Your task to perform on an android device: empty trash in the gmail app Image 0: 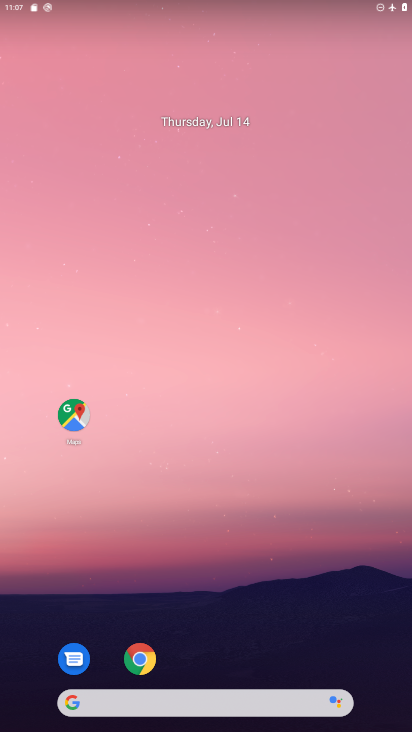
Step 0: drag from (316, 618) to (333, 193)
Your task to perform on an android device: empty trash in the gmail app Image 1: 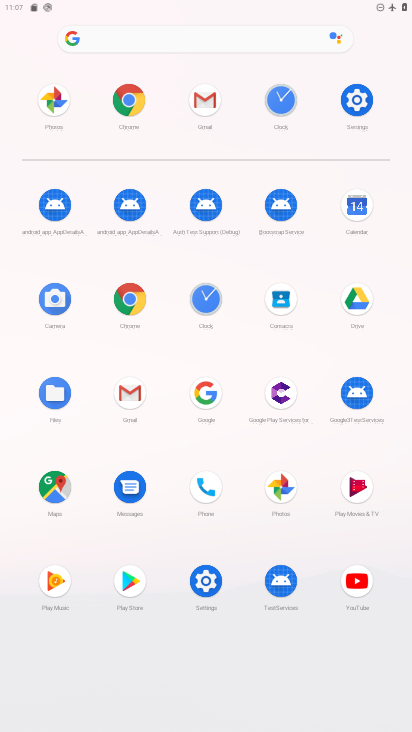
Step 1: click (202, 101)
Your task to perform on an android device: empty trash in the gmail app Image 2: 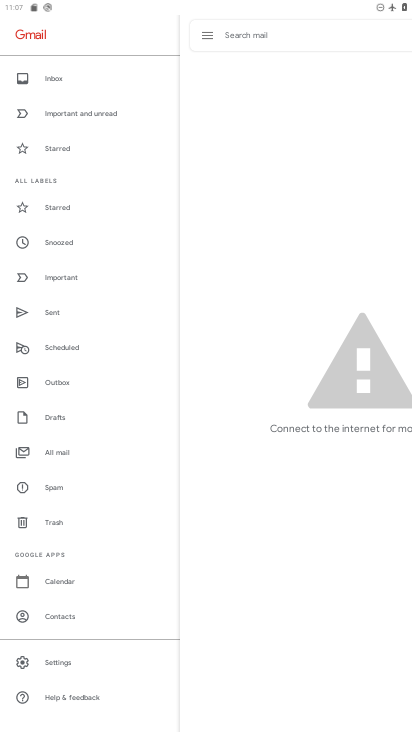
Step 2: click (58, 522)
Your task to perform on an android device: empty trash in the gmail app Image 3: 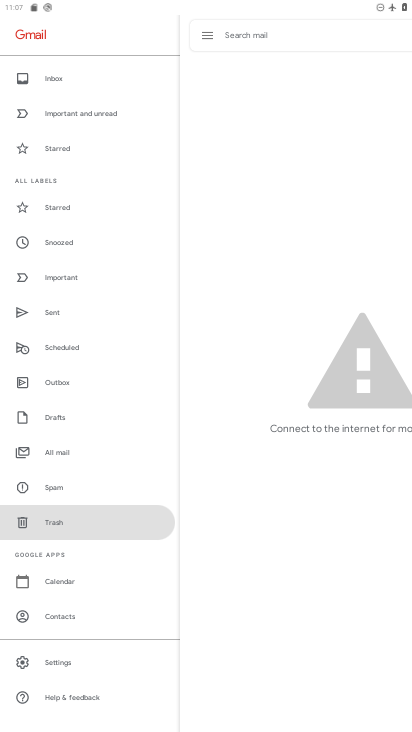
Step 3: task complete